Your task to perform on an android device: Show me recent news Image 0: 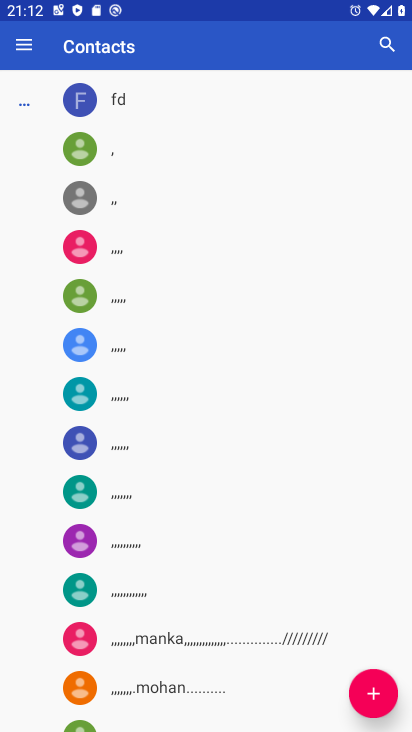
Step 0: press home button
Your task to perform on an android device: Show me recent news Image 1: 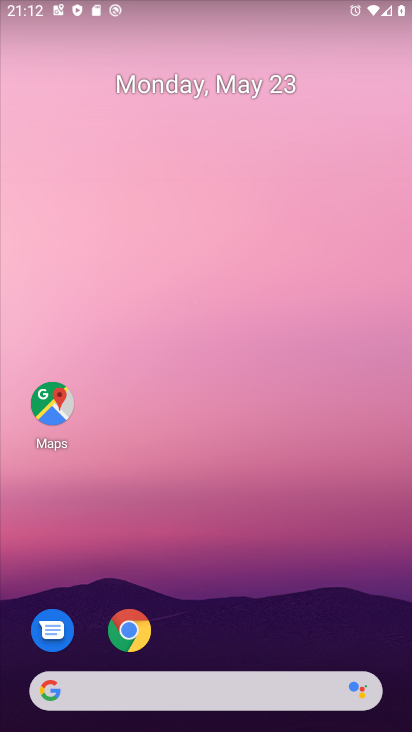
Step 1: drag from (141, 627) to (141, 436)
Your task to perform on an android device: Show me recent news Image 2: 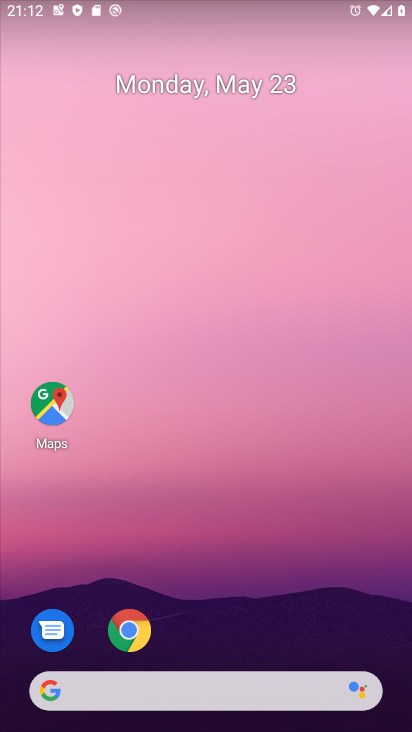
Step 2: drag from (189, 665) to (178, 397)
Your task to perform on an android device: Show me recent news Image 3: 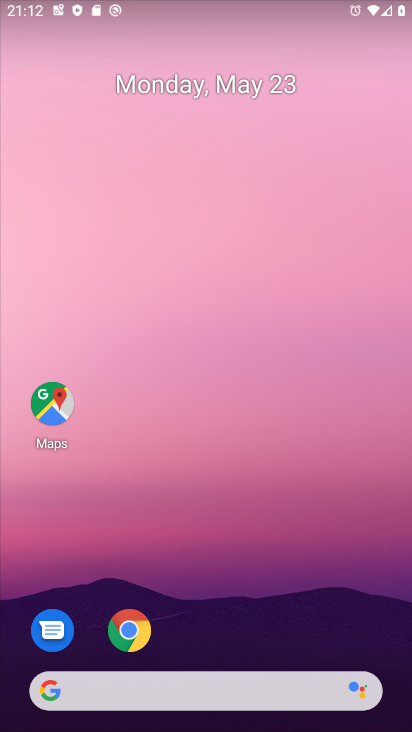
Step 3: drag from (136, 660) to (122, 328)
Your task to perform on an android device: Show me recent news Image 4: 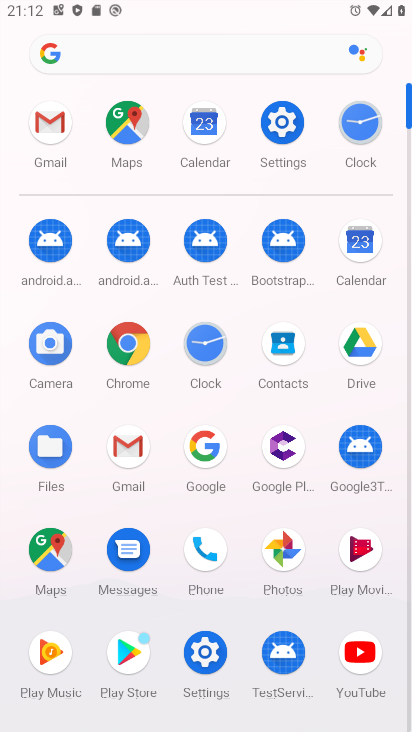
Step 4: click (205, 449)
Your task to perform on an android device: Show me recent news Image 5: 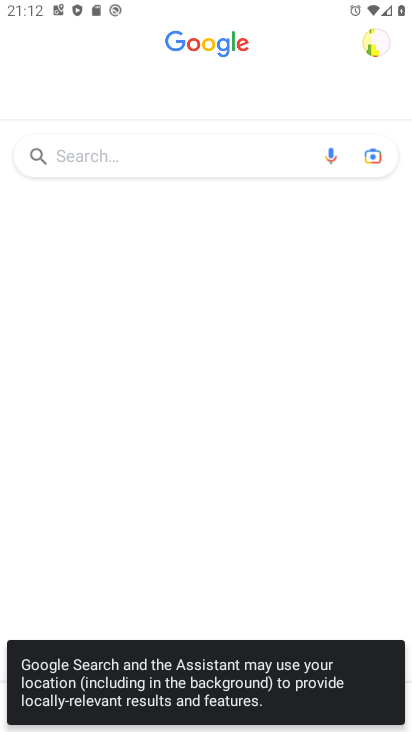
Step 5: click (130, 156)
Your task to perform on an android device: Show me recent news Image 6: 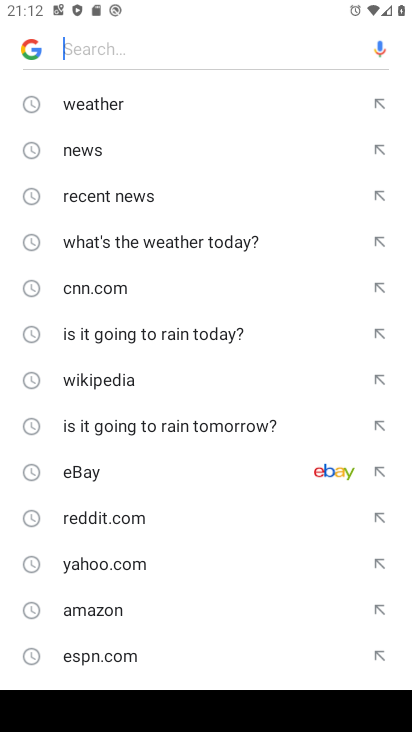
Step 6: click (113, 193)
Your task to perform on an android device: Show me recent news Image 7: 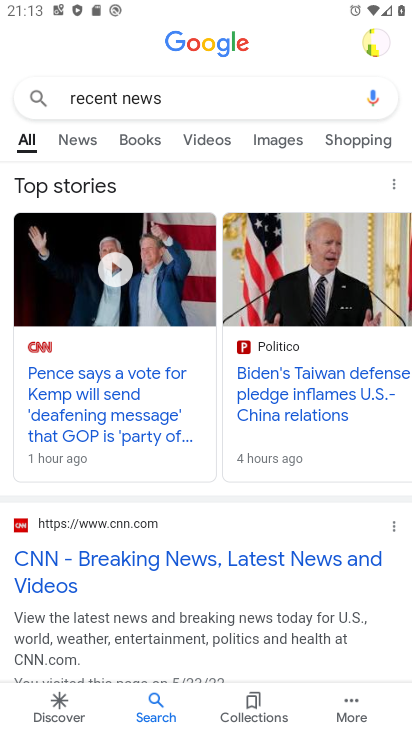
Step 7: task complete